Your task to perform on an android device: Open Maps and search for coffee Image 0: 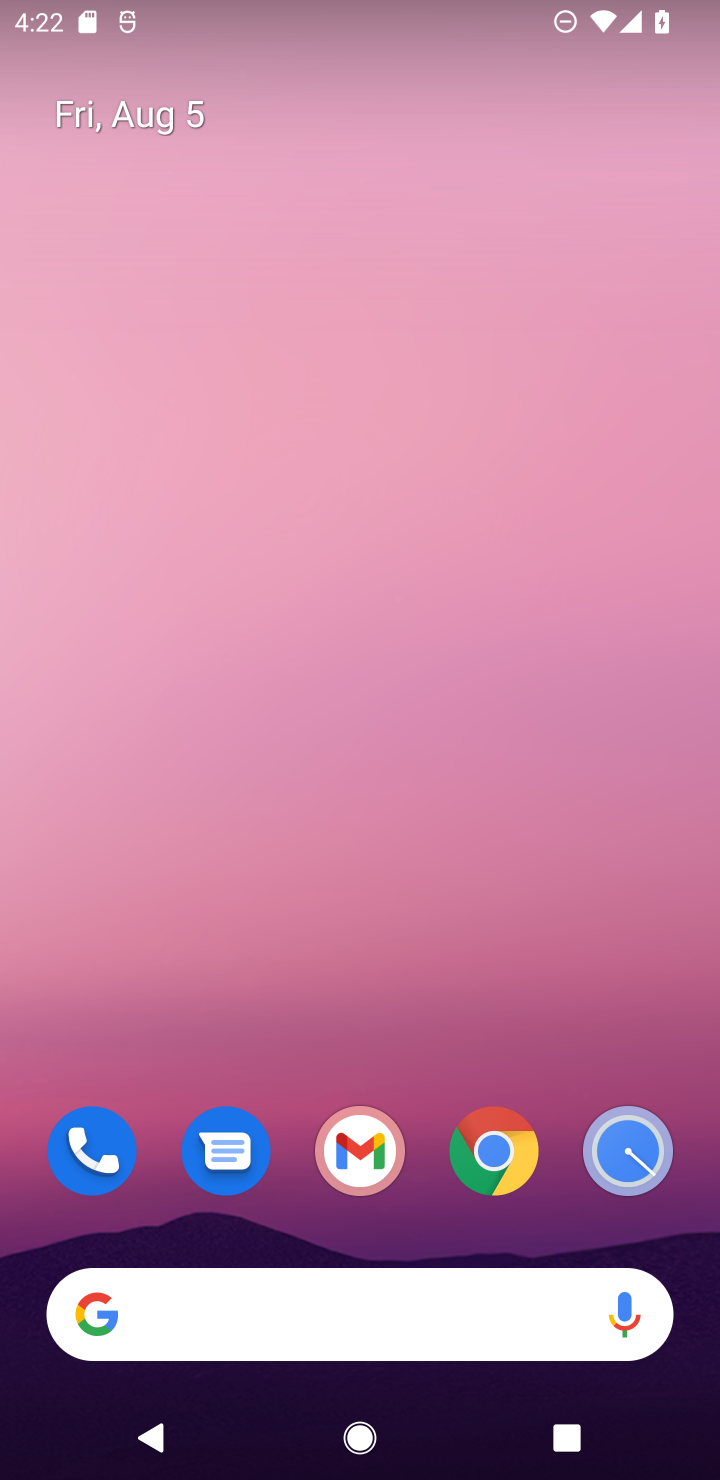
Step 0: drag from (379, 1037) to (370, 130)
Your task to perform on an android device: Open Maps and search for coffee Image 1: 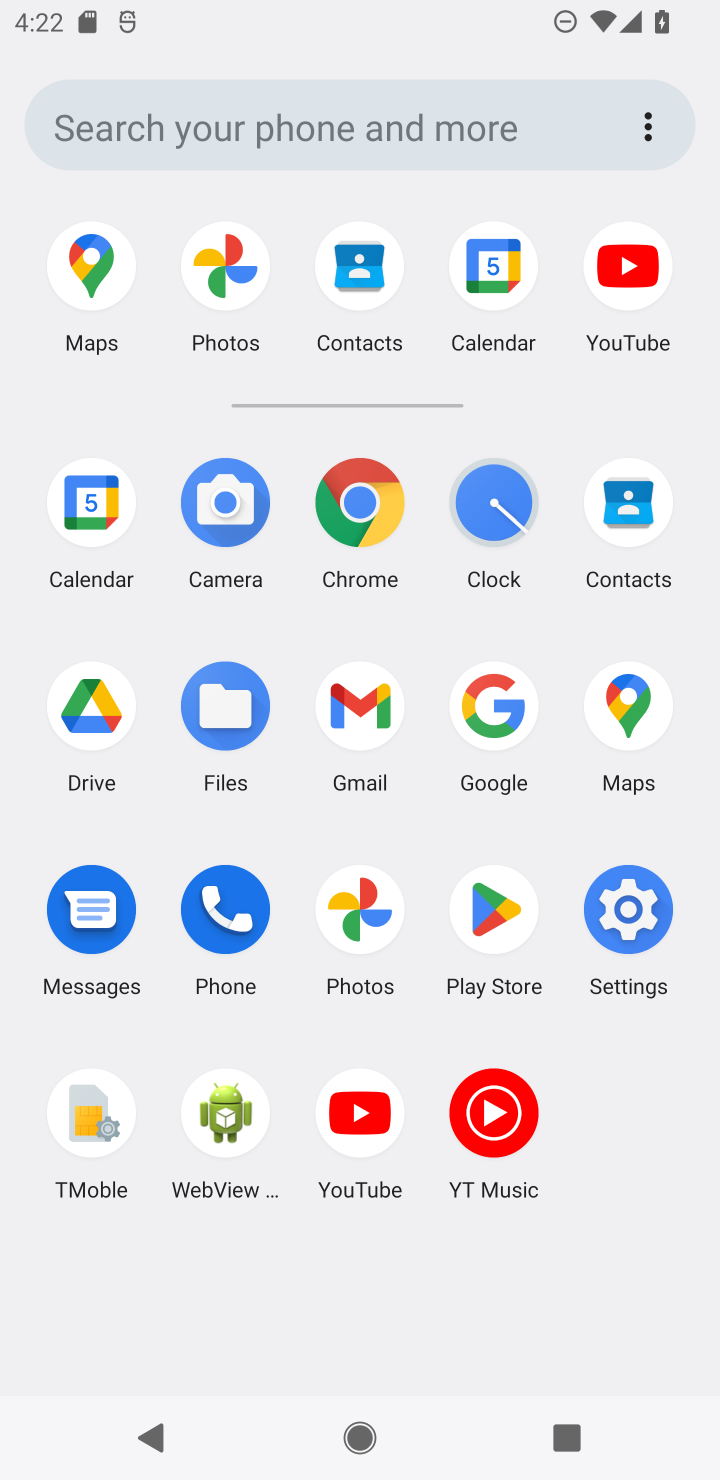
Step 1: click (608, 701)
Your task to perform on an android device: Open Maps and search for coffee Image 2: 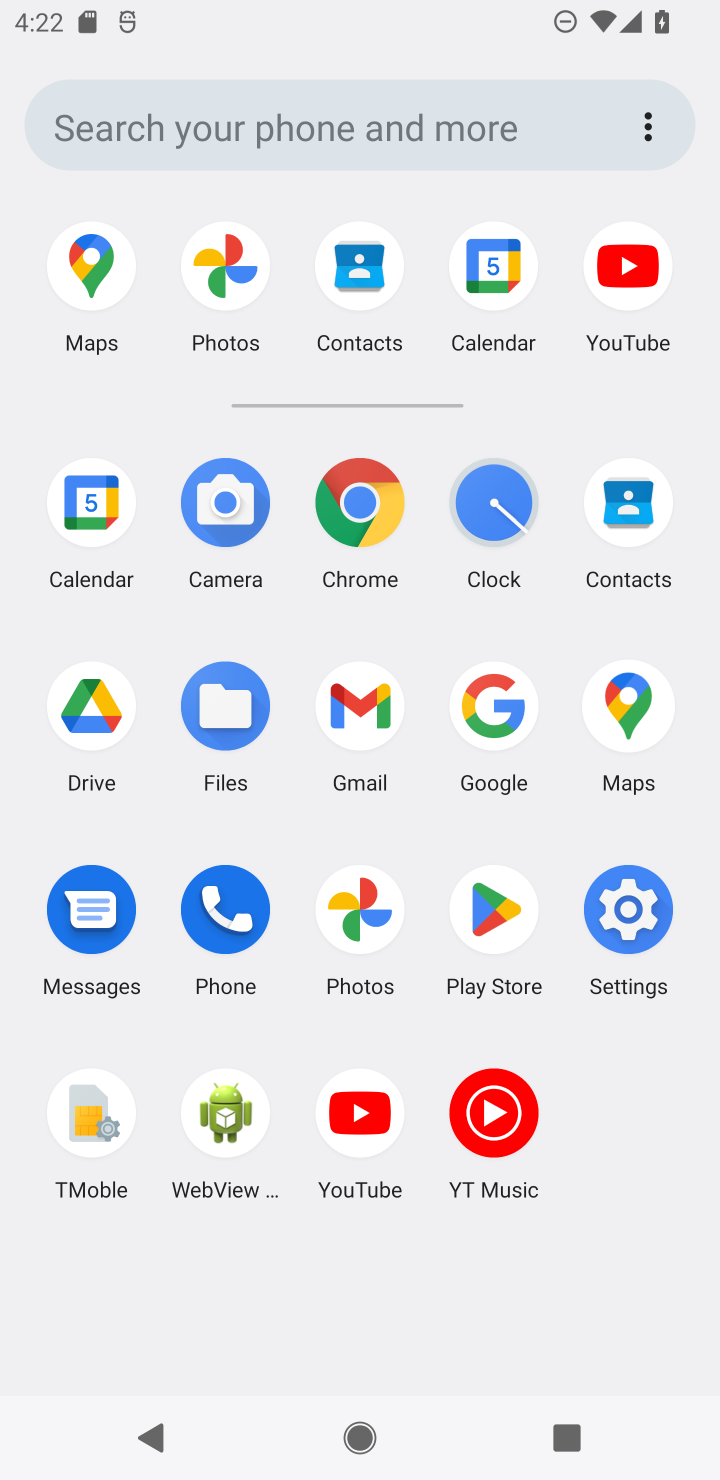
Step 2: click (608, 701)
Your task to perform on an android device: Open Maps and search for coffee Image 3: 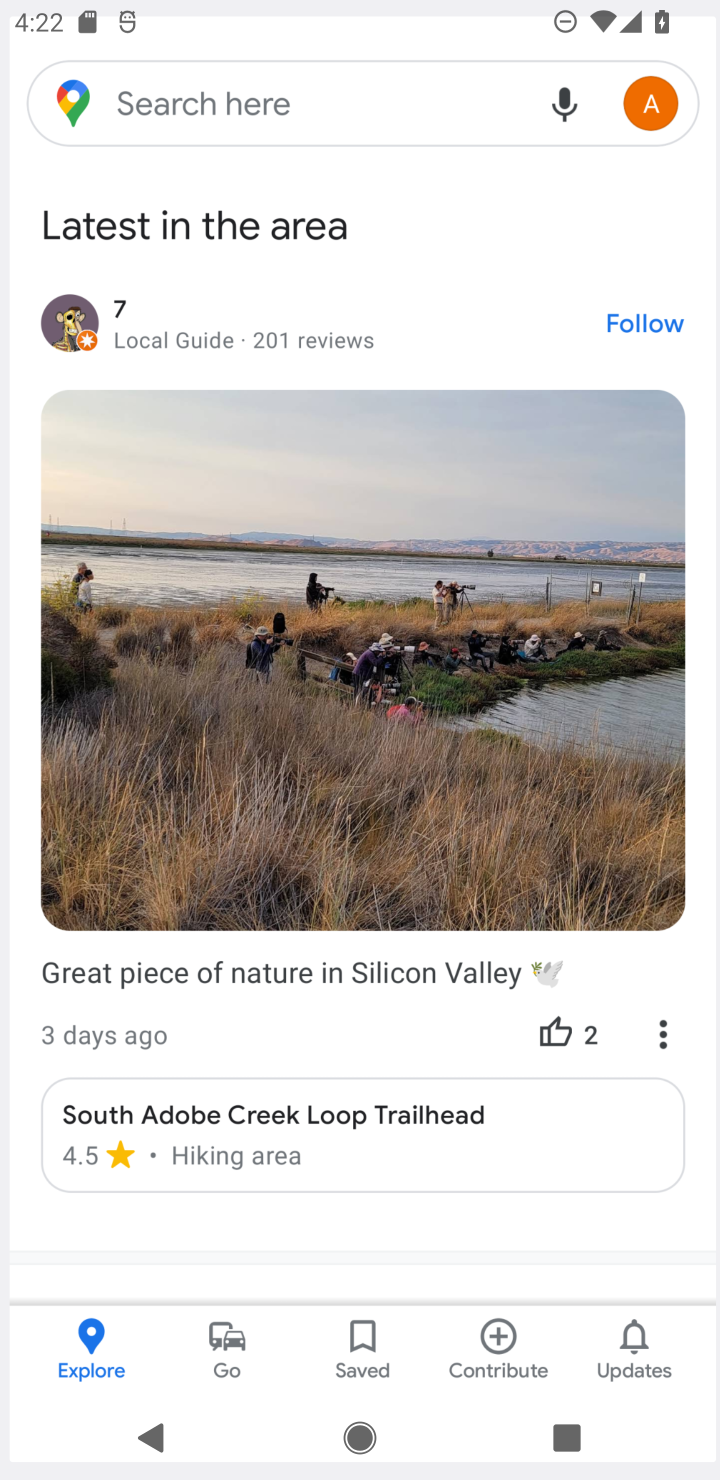
Step 3: click (608, 701)
Your task to perform on an android device: Open Maps and search for coffee Image 4: 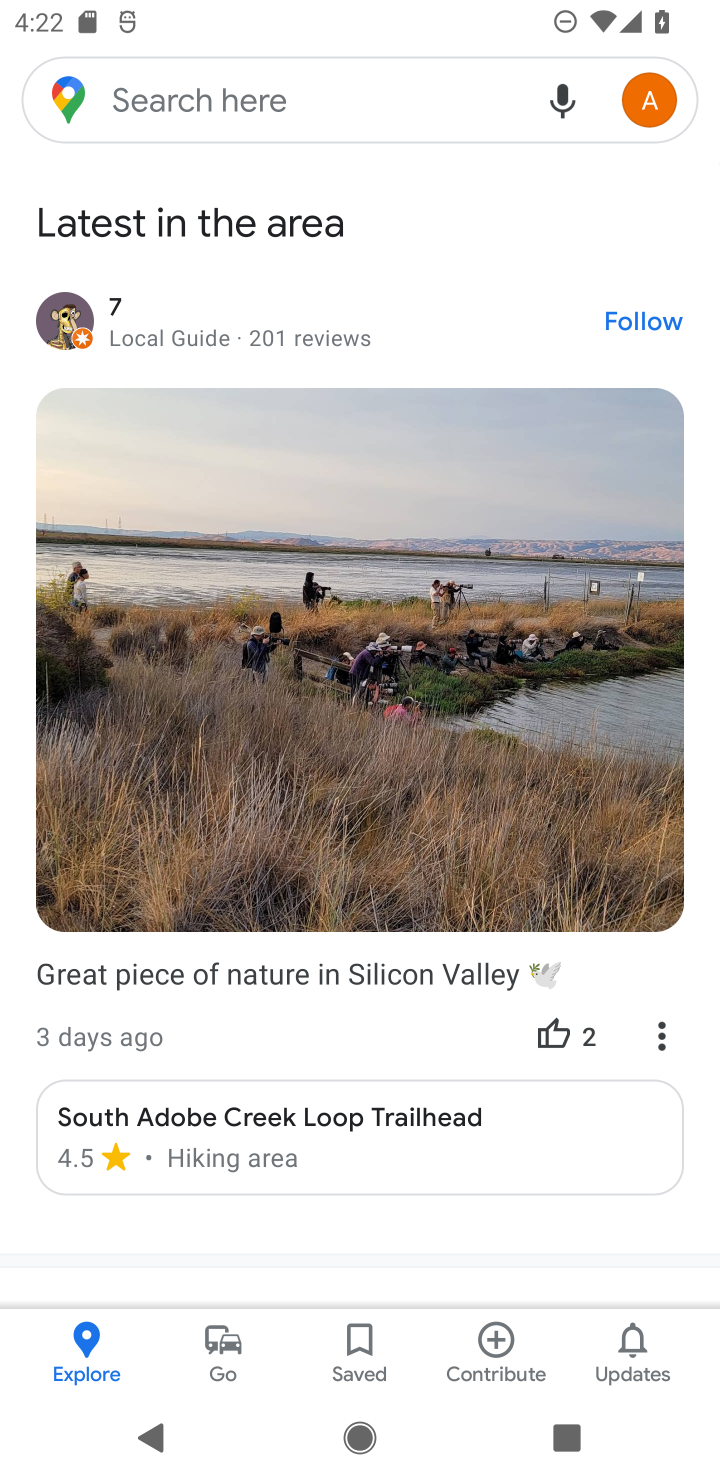
Step 4: click (340, 78)
Your task to perform on an android device: Open Maps and search for coffee Image 5: 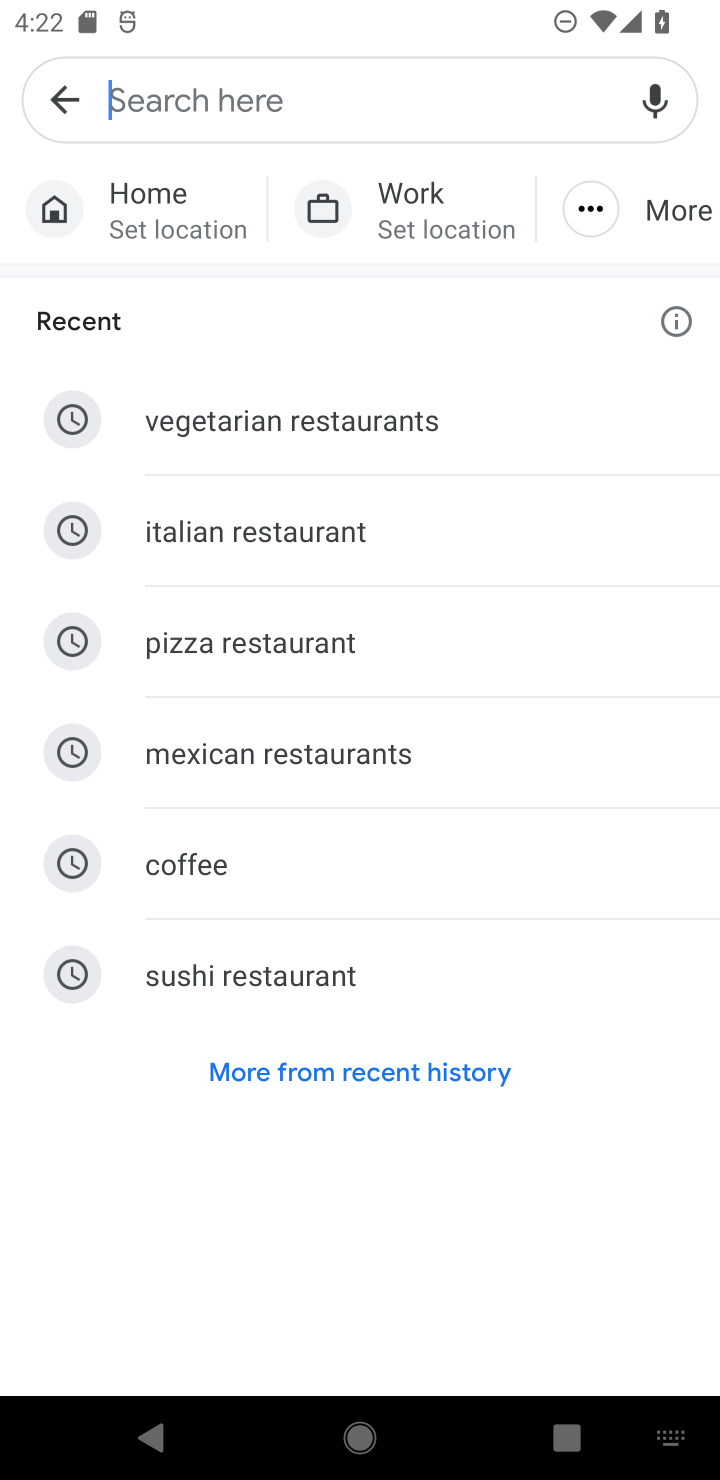
Step 5: type "coffee"
Your task to perform on an android device: Open Maps and search for coffee Image 6: 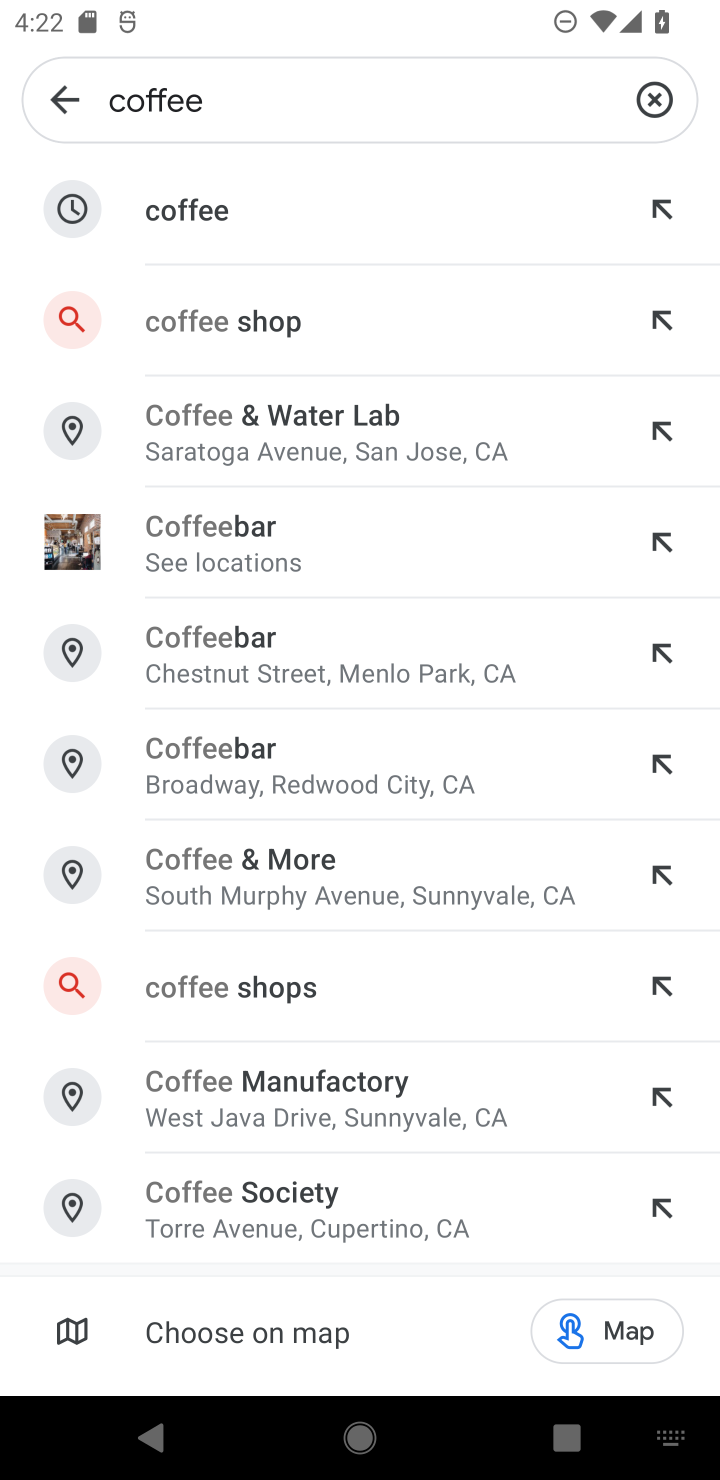
Step 6: click (362, 223)
Your task to perform on an android device: Open Maps and search for coffee Image 7: 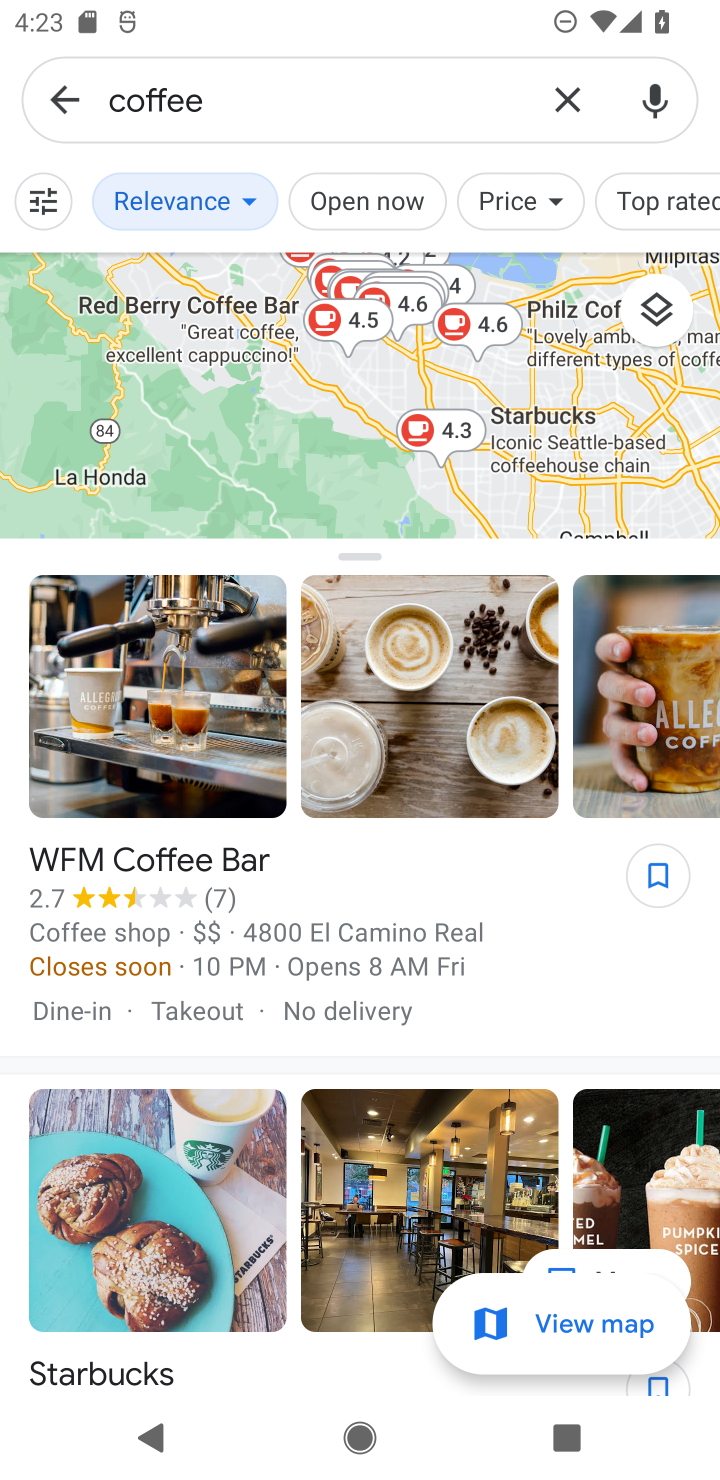
Step 7: task complete